Your task to perform on an android device: turn off data saver in the chrome app Image 0: 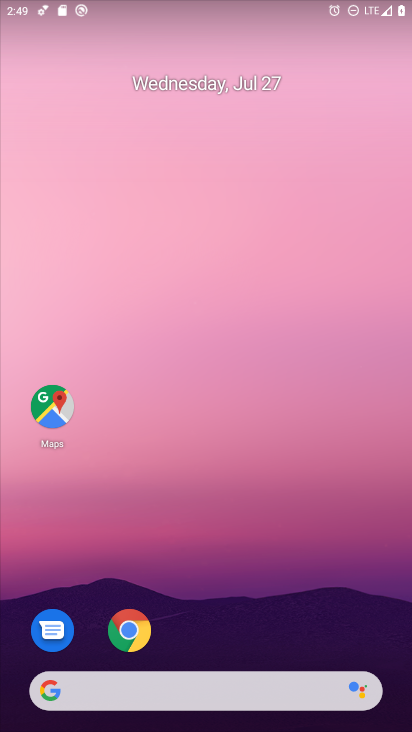
Step 0: click (132, 634)
Your task to perform on an android device: turn off data saver in the chrome app Image 1: 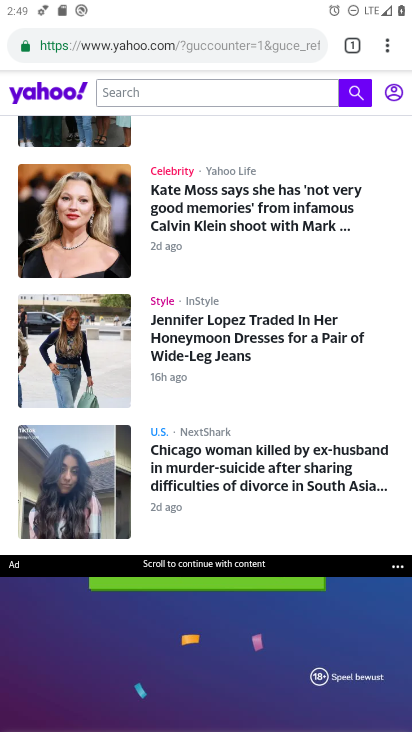
Step 1: click (386, 51)
Your task to perform on an android device: turn off data saver in the chrome app Image 2: 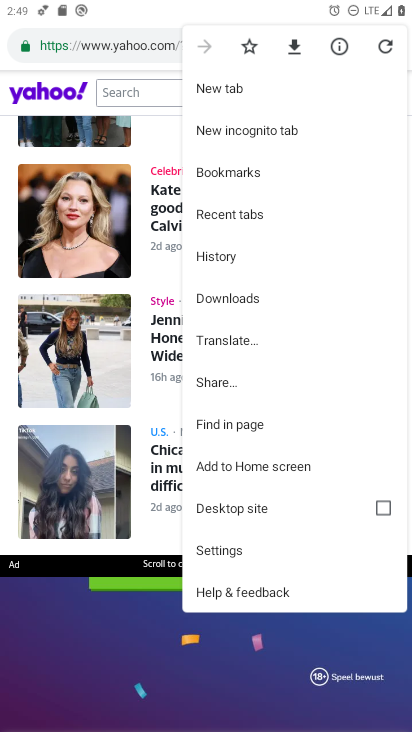
Step 2: click (240, 546)
Your task to perform on an android device: turn off data saver in the chrome app Image 3: 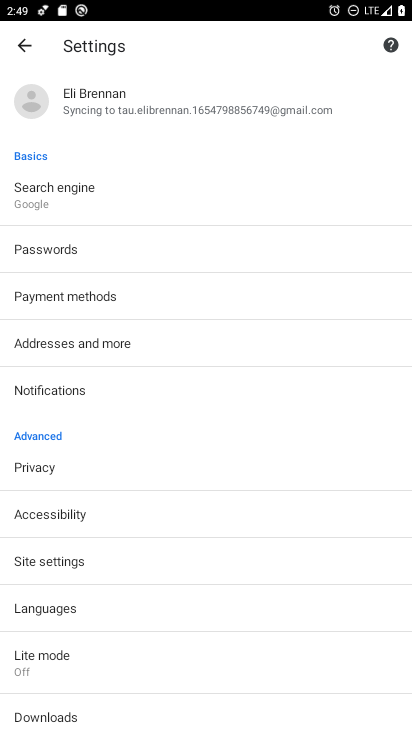
Step 3: drag from (250, 550) to (253, 255)
Your task to perform on an android device: turn off data saver in the chrome app Image 4: 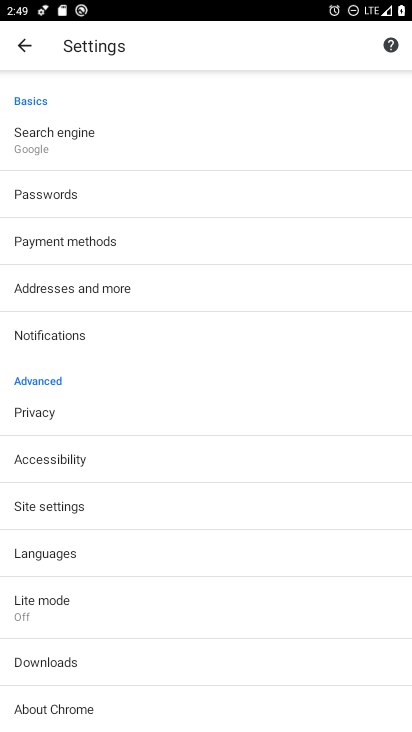
Step 4: click (33, 604)
Your task to perform on an android device: turn off data saver in the chrome app Image 5: 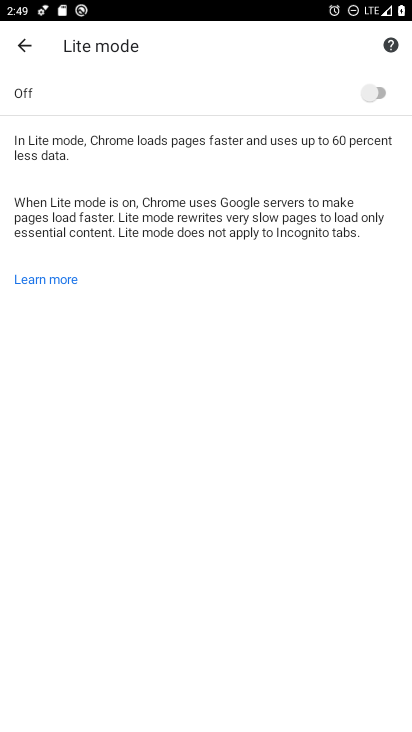
Step 5: task complete